Your task to perform on an android device: check storage Image 0: 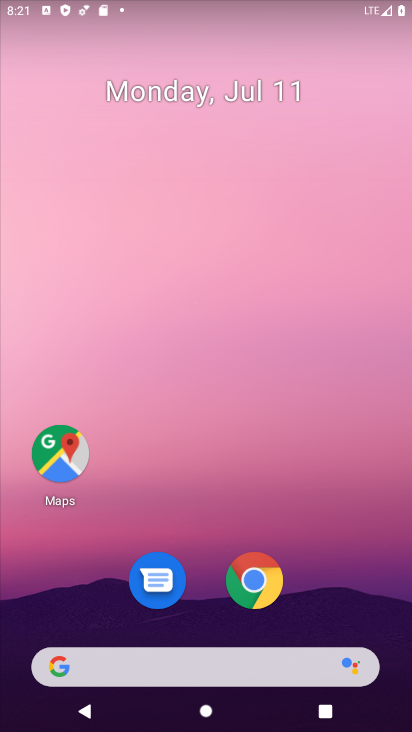
Step 0: drag from (199, 491) to (228, 49)
Your task to perform on an android device: check storage Image 1: 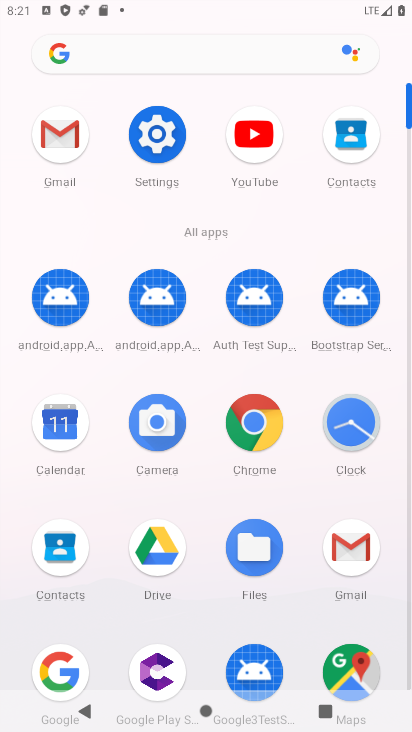
Step 1: click (159, 137)
Your task to perform on an android device: check storage Image 2: 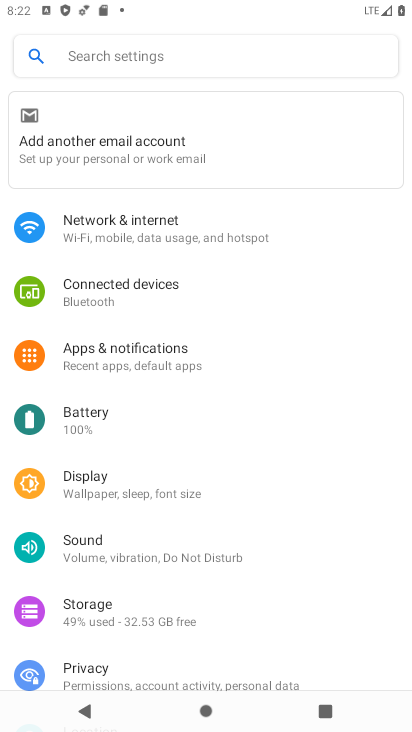
Step 2: click (130, 610)
Your task to perform on an android device: check storage Image 3: 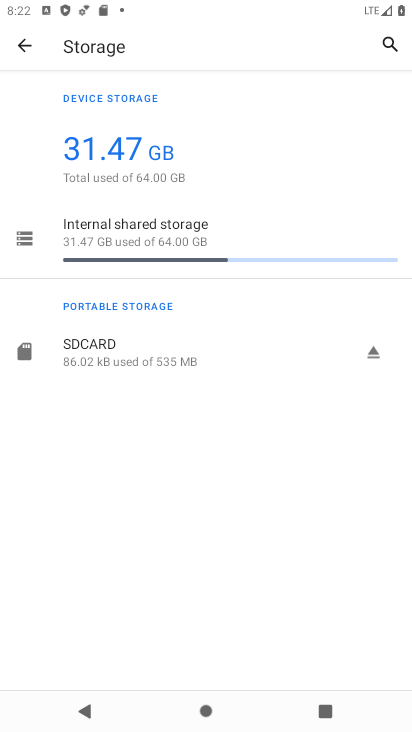
Step 3: task complete